Your task to perform on an android device: Do I have any events today? Image 0: 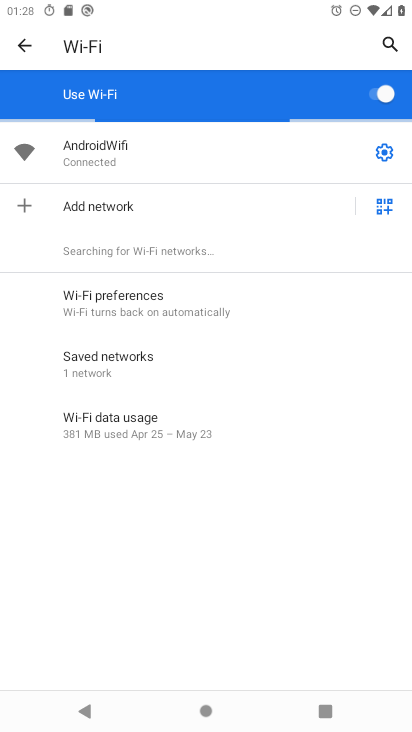
Step 0: press home button
Your task to perform on an android device: Do I have any events today? Image 1: 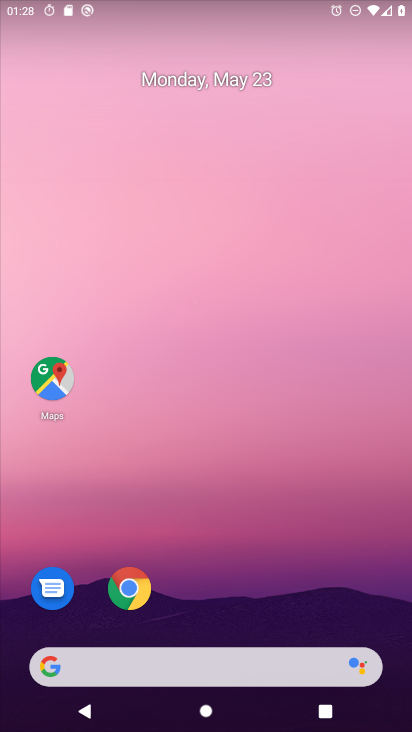
Step 1: drag from (264, 703) to (156, 95)
Your task to perform on an android device: Do I have any events today? Image 2: 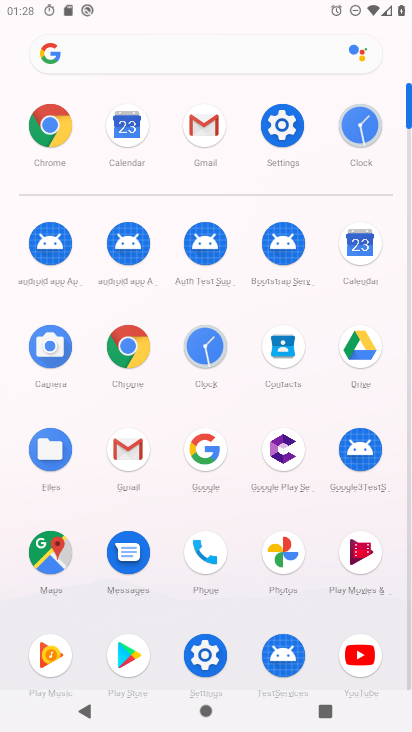
Step 2: click (359, 252)
Your task to perform on an android device: Do I have any events today? Image 3: 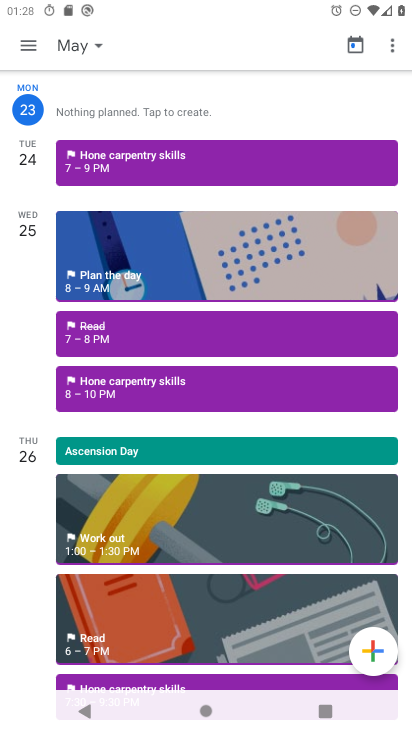
Step 3: task complete